Your task to perform on an android device: Search for a new lawnmower on home depot Image 0: 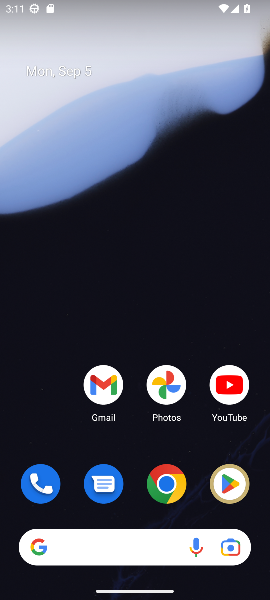
Step 0: click (159, 483)
Your task to perform on an android device: Search for a new lawnmower on home depot Image 1: 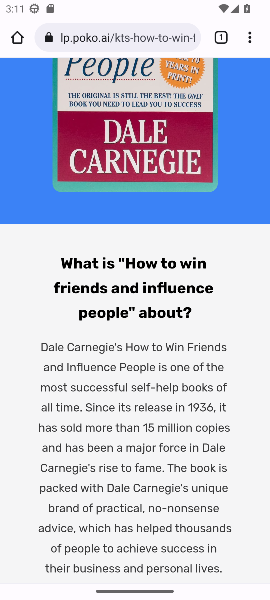
Step 1: click (168, 38)
Your task to perform on an android device: Search for a new lawnmower on home depot Image 2: 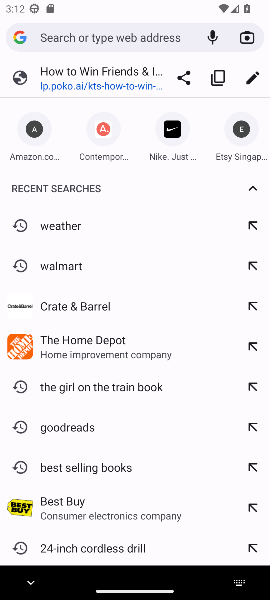
Step 2: type "home depot"
Your task to perform on an android device: Search for a new lawnmower on home depot Image 3: 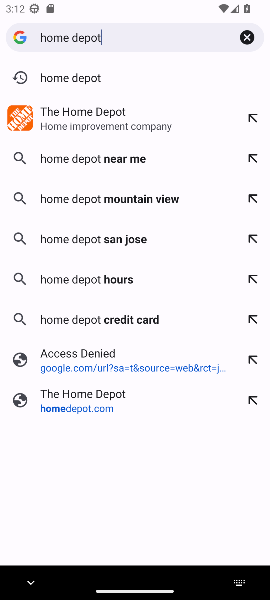
Step 3: click (84, 115)
Your task to perform on an android device: Search for a new lawnmower on home depot Image 4: 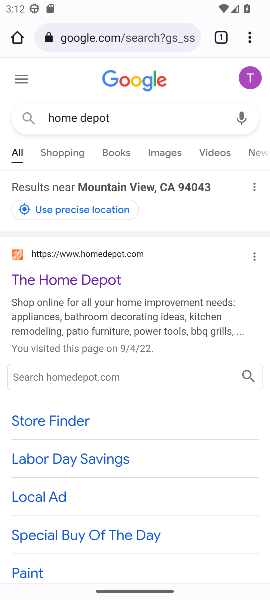
Step 4: click (75, 279)
Your task to perform on an android device: Search for a new lawnmower on home depot Image 5: 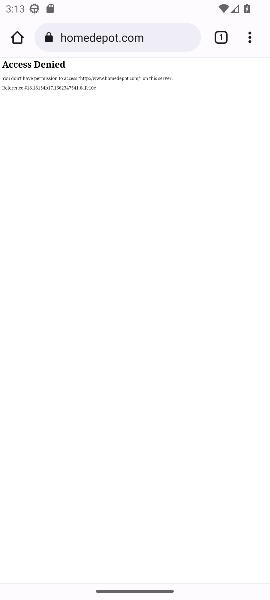
Step 5: task complete